Your task to perform on an android device: Open the stopwatch Image 0: 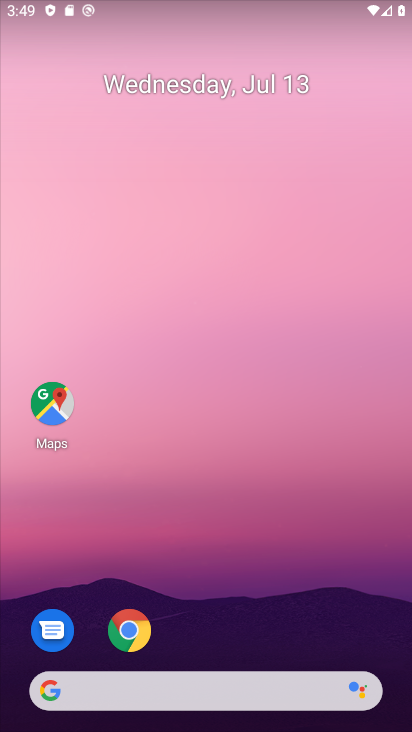
Step 0: press home button
Your task to perform on an android device: Open the stopwatch Image 1: 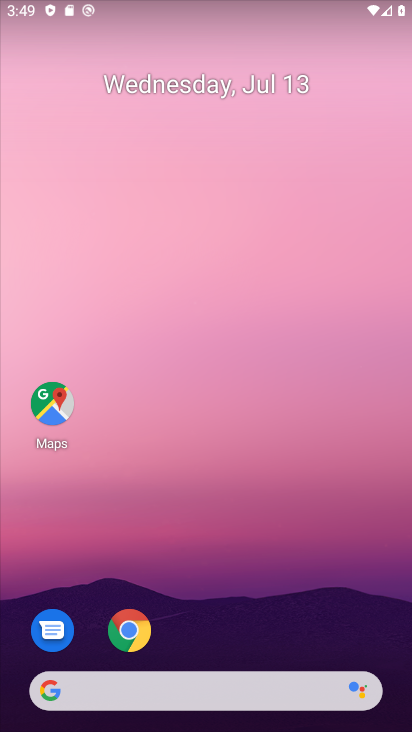
Step 1: drag from (241, 644) to (249, 25)
Your task to perform on an android device: Open the stopwatch Image 2: 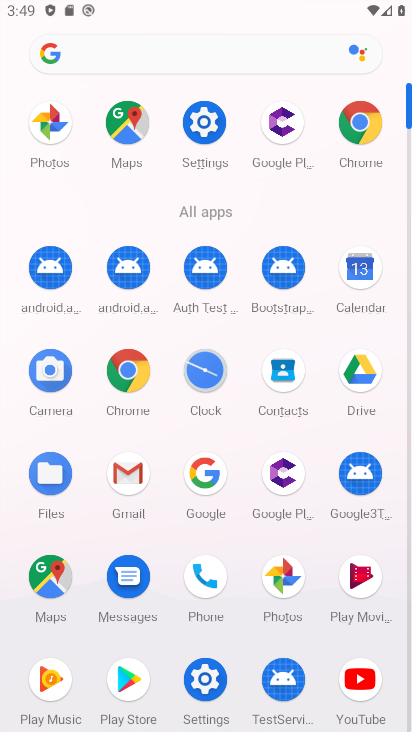
Step 2: click (199, 384)
Your task to perform on an android device: Open the stopwatch Image 3: 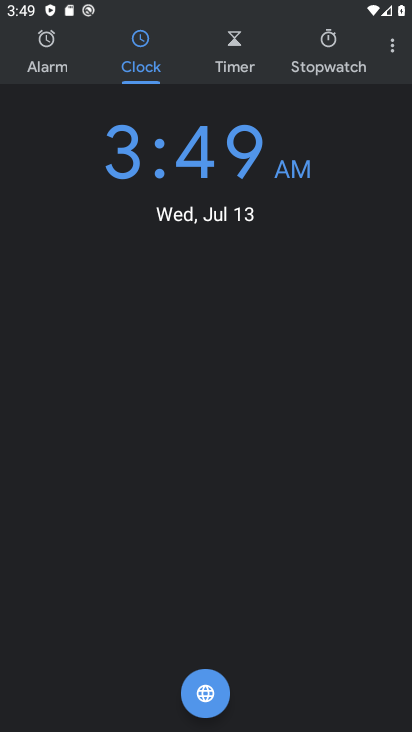
Step 3: click (329, 38)
Your task to perform on an android device: Open the stopwatch Image 4: 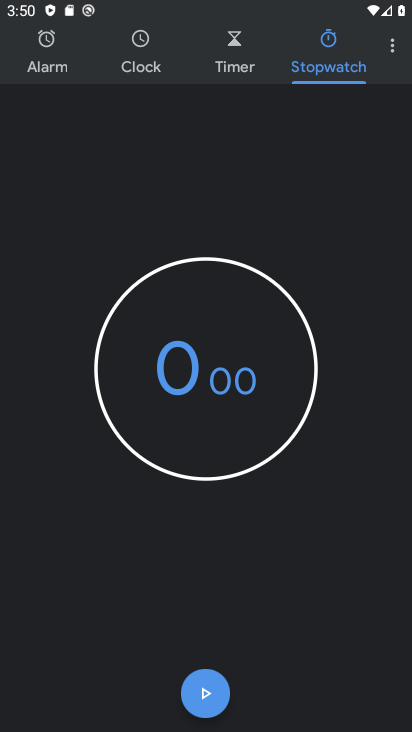
Step 4: task complete